Your task to perform on an android device: toggle notification dots Image 0: 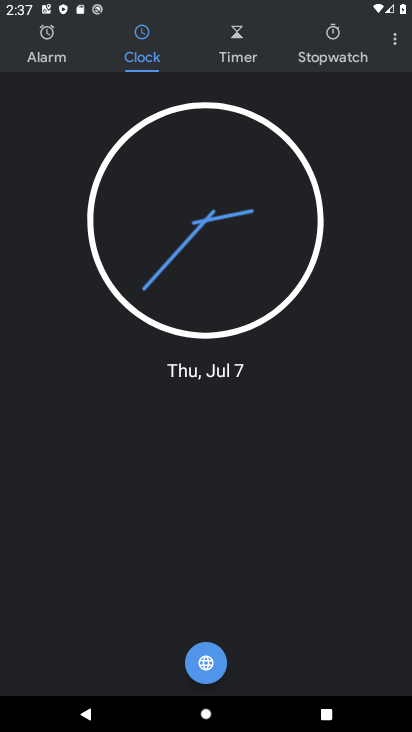
Step 0: press back button
Your task to perform on an android device: toggle notification dots Image 1: 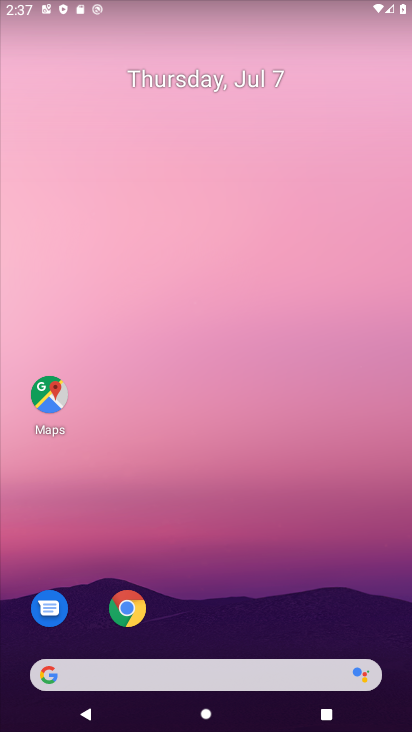
Step 1: drag from (387, 617) to (358, 127)
Your task to perform on an android device: toggle notification dots Image 2: 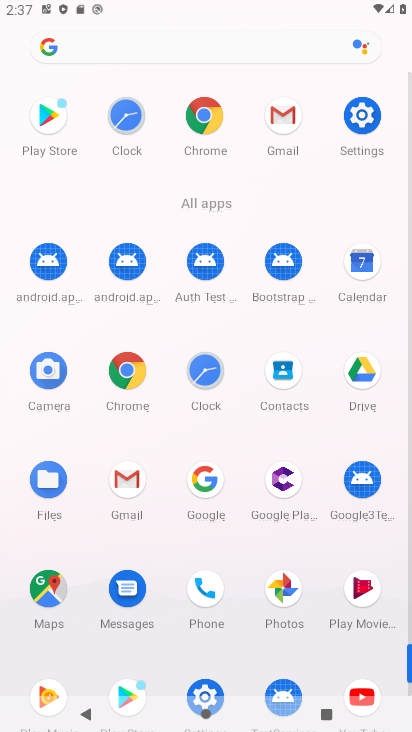
Step 2: click (410, 691)
Your task to perform on an android device: toggle notification dots Image 3: 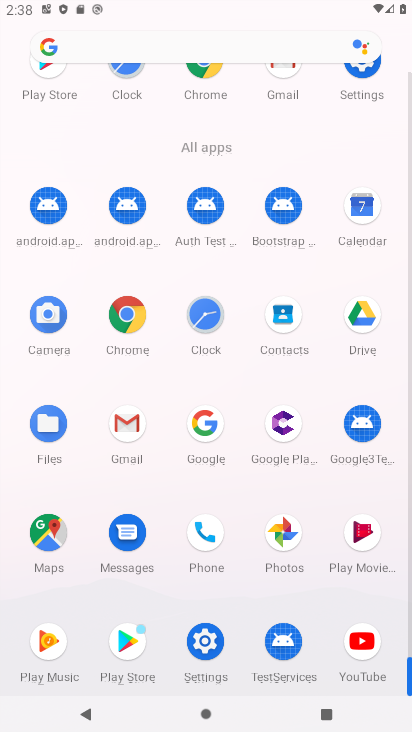
Step 3: click (205, 645)
Your task to perform on an android device: toggle notification dots Image 4: 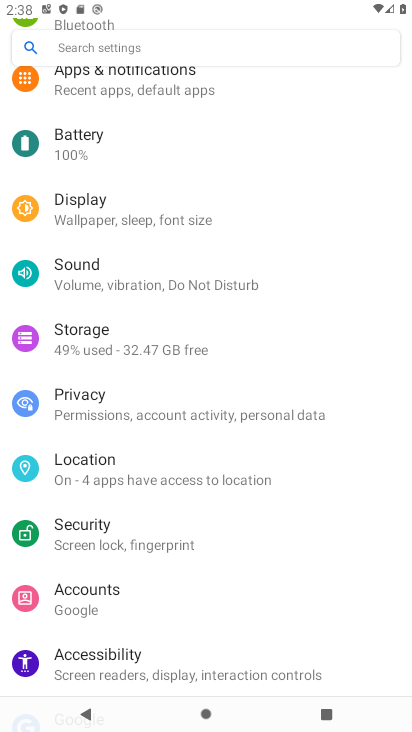
Step 4: drag from (319, 195) to (316, 439)
Your task to perform on an android device: toggle notification dots Image 5: 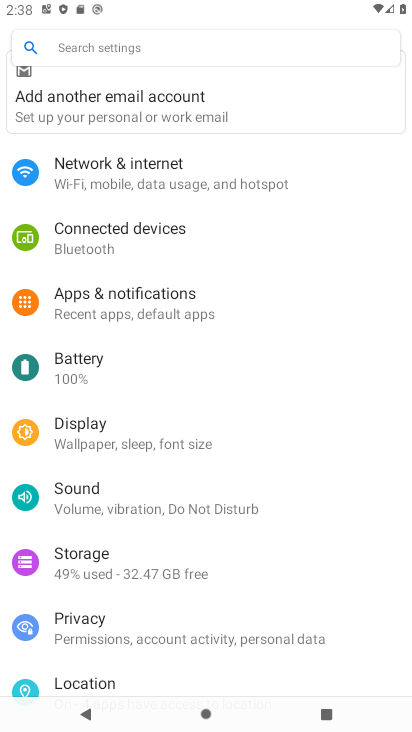
Step 5: click (115, 297)
Your task to perform on an android device: toggle notification dots Image 6: 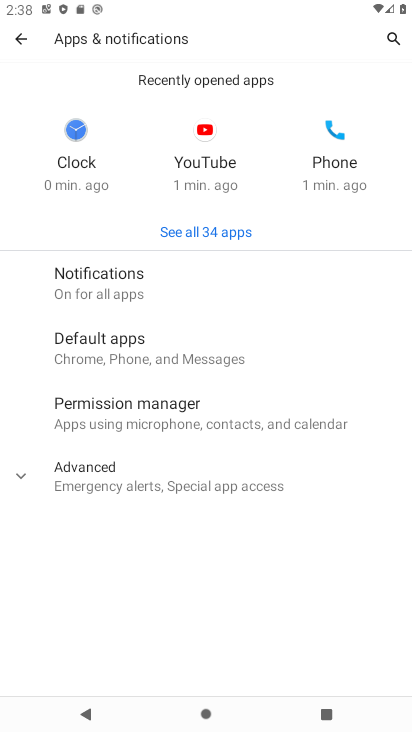
Step 6: click (98, 269)
Your task to perform on an android device: toggle notification dots Image 7: 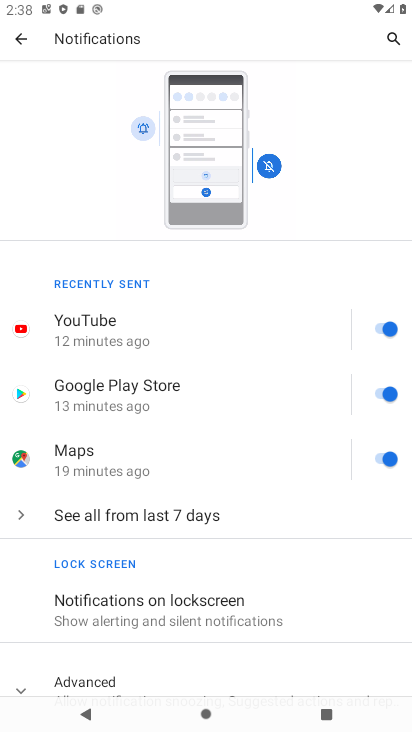
Step 7: drag from (285, 549) to (377, 115)
Your task to perform on an android device: toggle notification dots Image 8: 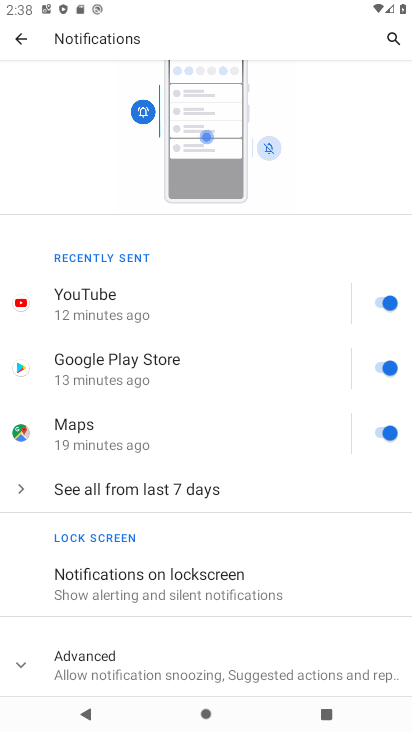
Step 8: click (26, 670)
Your task to perform on an android device: toggle notification dots Image 9: 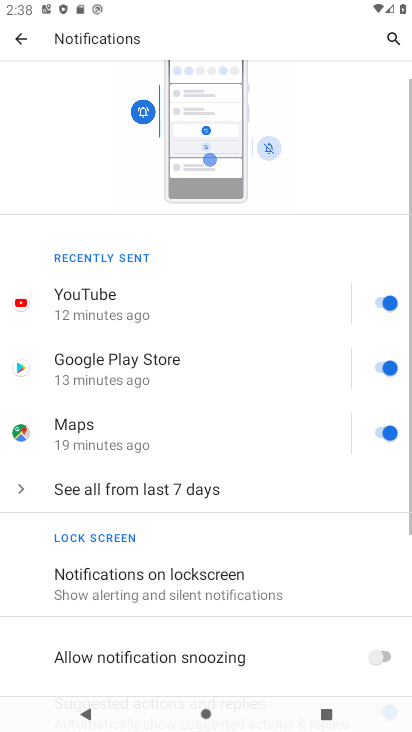
Step 9: drag from (290, 674) to (344, 247)
Your task to perform on an android device: toggle notification dots Image 10: 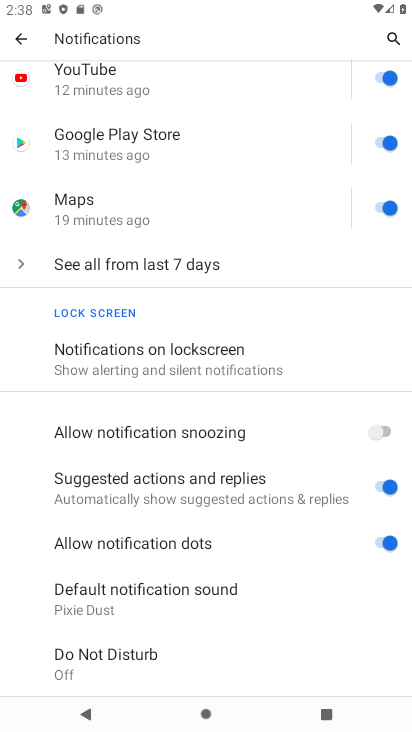
Step 10: click (384, 542)
Your task to perform on an android device: toggle notification dots Image 11: 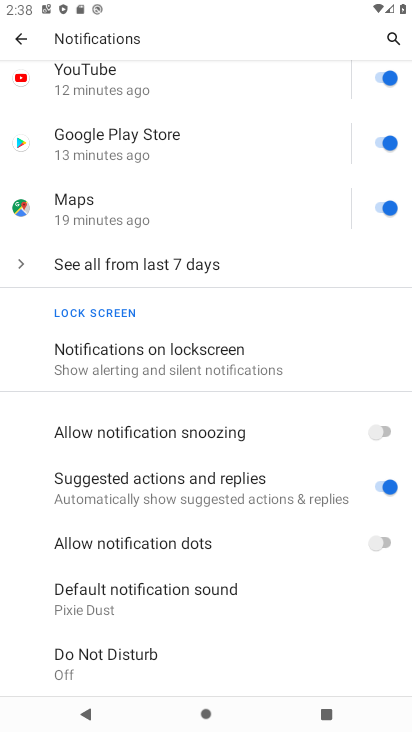
Step 11: task complete